Your task to perform on an android device: check google app version Image 0: 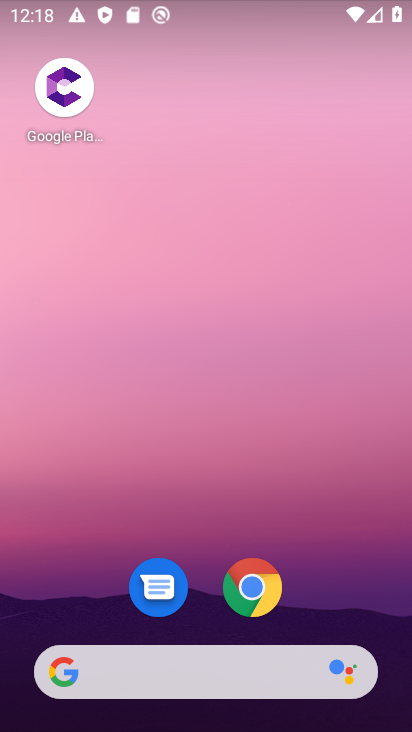
Step 0: drag from (212, 711) to (276, 50)
Your task to perform on an android device: check google app version Image 1: 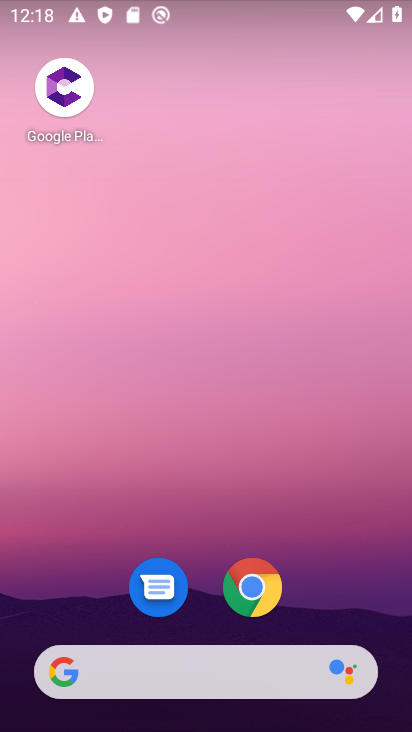
Step 1: drag from (168, 685) to (273, 124)
Your task to perform on an android device: check google app version Image 2: 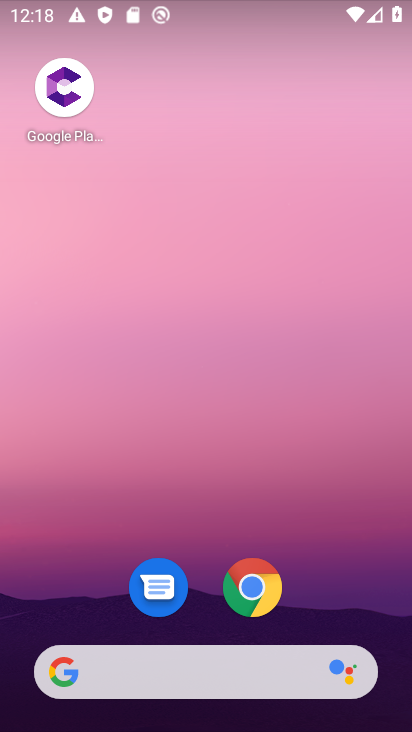
Step 2: drag from (93, 717) to (348, 13)
Your task to perform on an android device: check google app version Image 3: 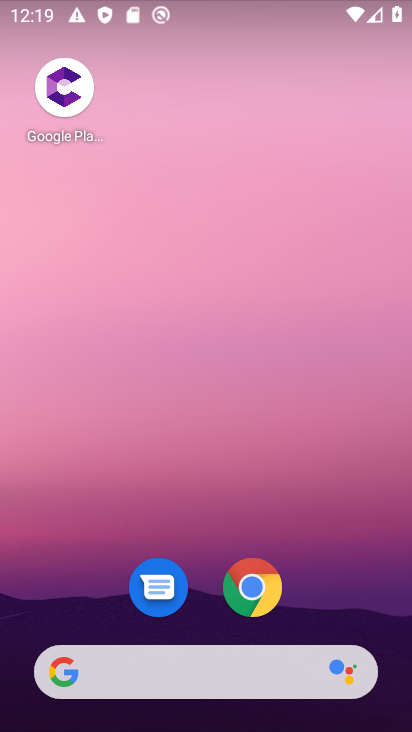
Step 3: drag from (267, 715) to (277, 93)
Your task to perform on an android device: check google app version Image 4: 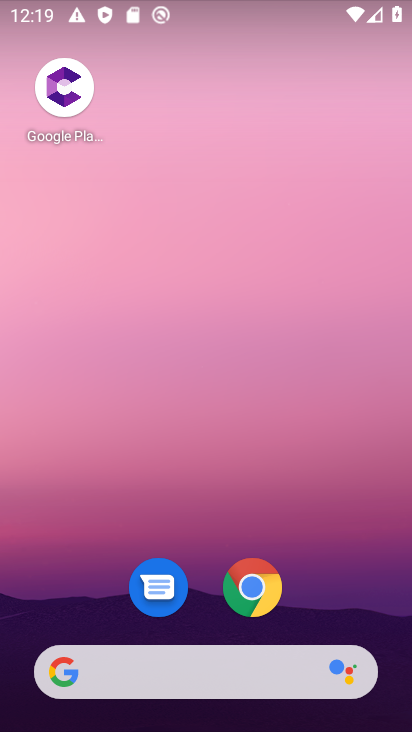
Step 4: drag from (250, 709) to (231, 96)
Your task to perform on an android device: check google app version Image 5: 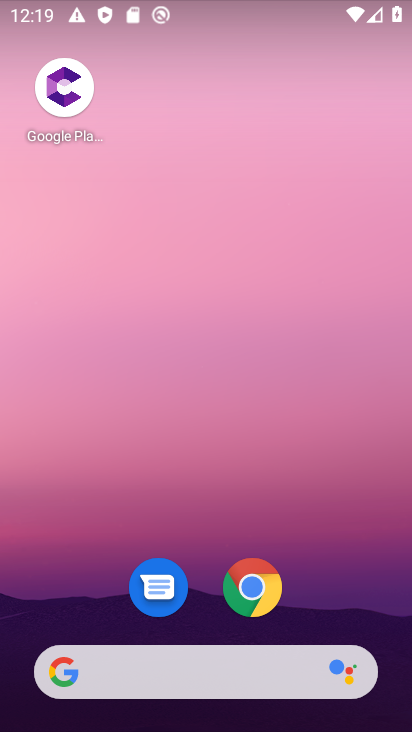
Step 5: drag from (139, 598) to (197, 125)
Your task to perform on an android device: check google app version Image 6: 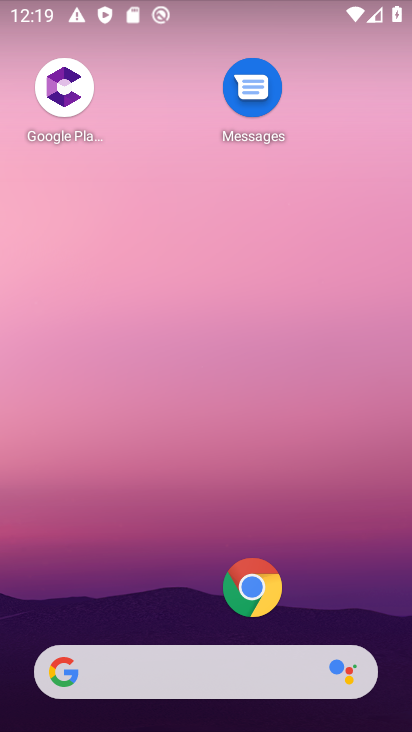
Step 6: drag from (135, 717) to (166, 169)
Your task to perform on an android device: check google app version Image 7: 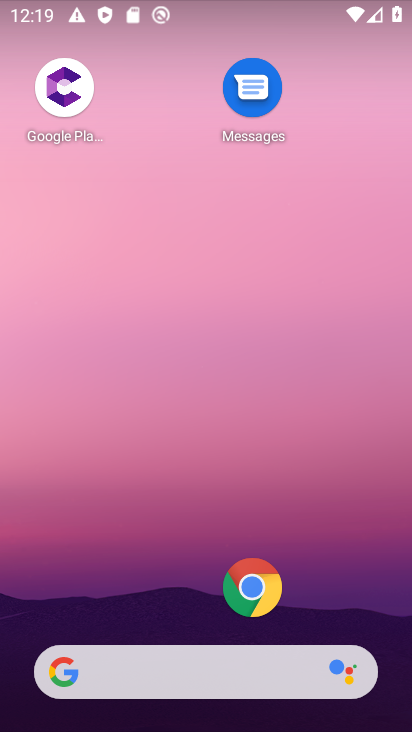
Step 7: drag from (179, 591) to (160, 47)
Your task to perform on an android device: check google app version Image 8: 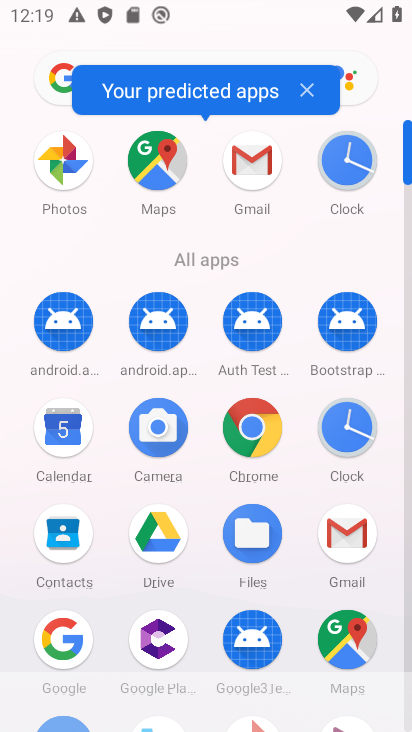
Step 8: click (76, 635)
Your task to perform on an android device: check google app version Image 9: 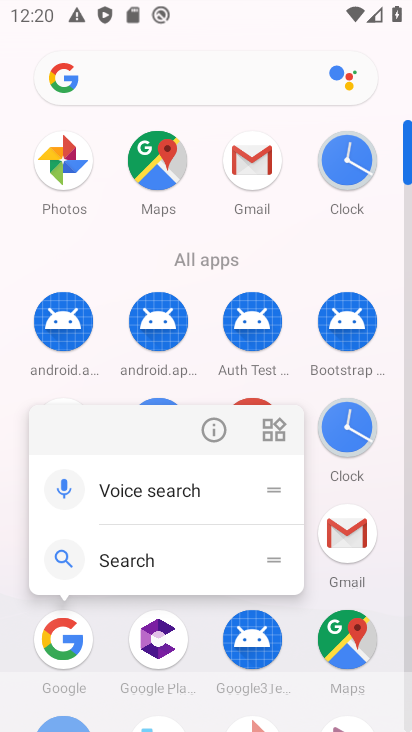
Step 9: click (197, 435)
Your task to perform on an android device: check google app version Image 10: 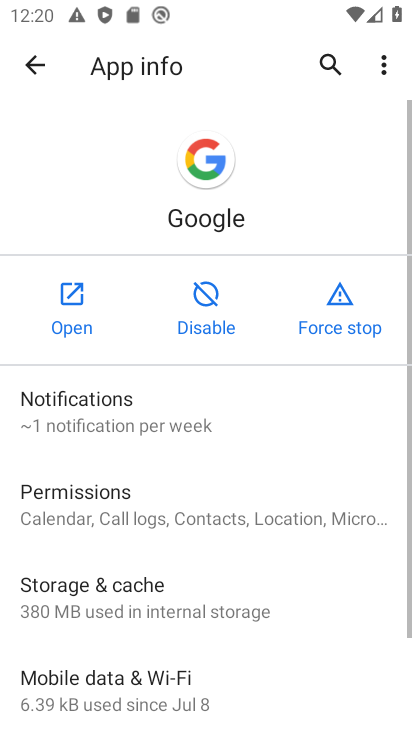
Step 10: drag from (288, 655) to (270, 40)
Your task to perform on an android device: check google app version Image 11: 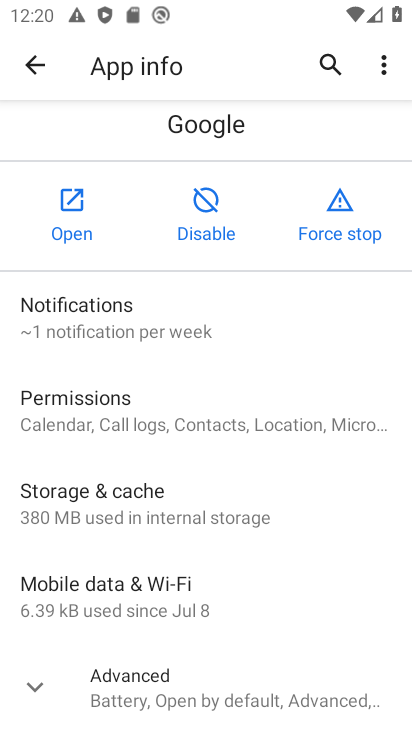
Step 11: click (169, 695)
Your task to perform on an android device: check google app version Image 12: 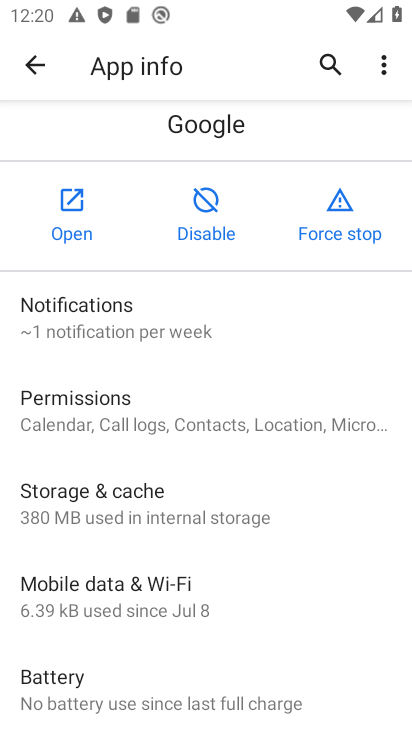
Step 12: task complete